Your task to perform on an android device: move a message to another label in the gmail app Image 0: 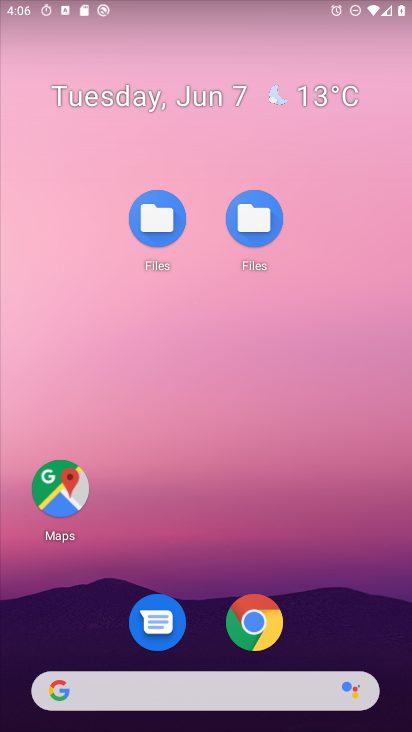
Step 0: drag from (374, 611) to (333, 18)
Your task to perform on an android device: move a message to another label in the gmail app Image 1: 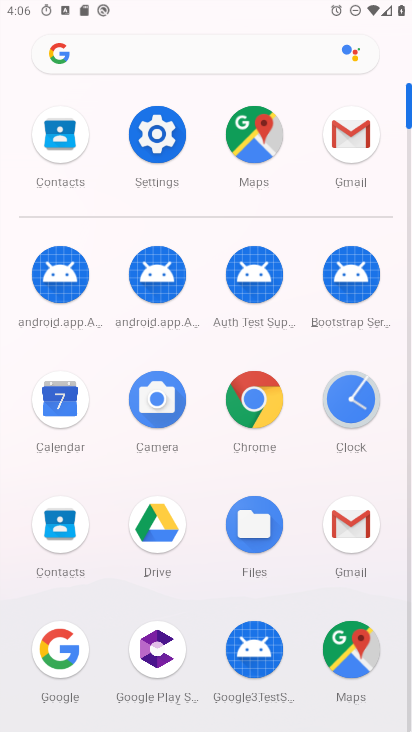
Step 1: click (346, 142)
Your task to perform on an android device: move a message to another label in the gmail app Image 2: 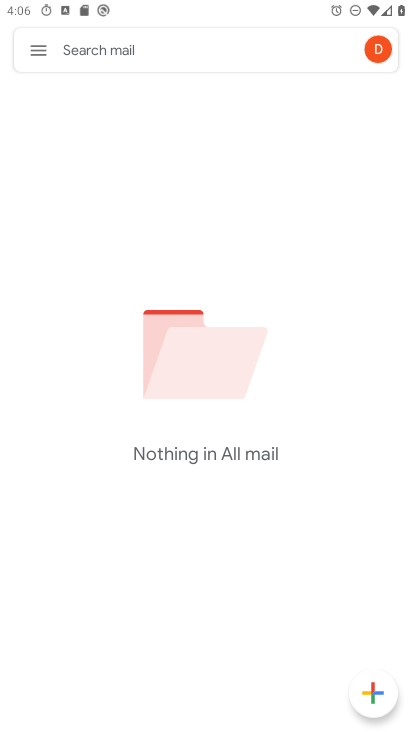
Step 2: click (28, 43)
Your task to perform on an android device: move a message to another label in the gmail app Image 3: 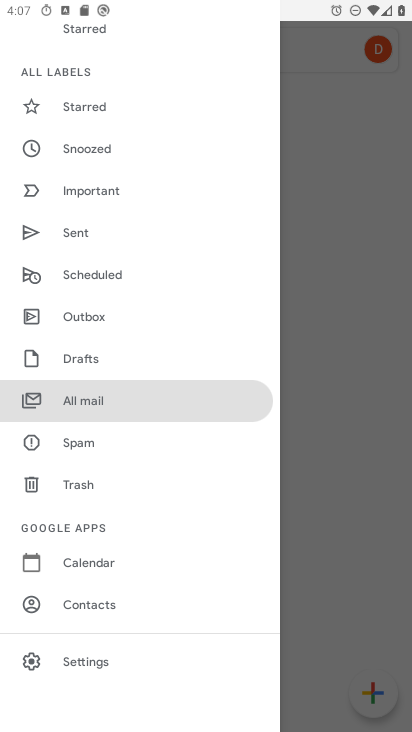
Step 3: click (124, 395)
Your task to perform on an android device: move a message to another label in the gmail app Image 4: 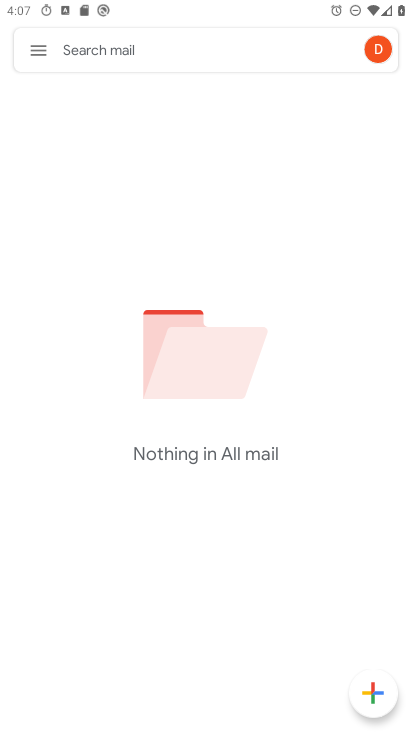
Step 4: task complete